Your task to perform on an android device: add a label to a message in the gmail app Image 0: 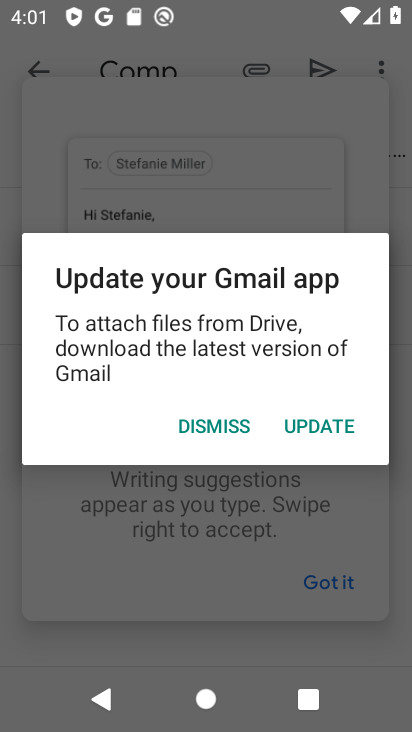
Step 0: drag from (69, 599) to (203, 212)
Your task to perform on an android device: add a label to a message in the gmail app Image 1: 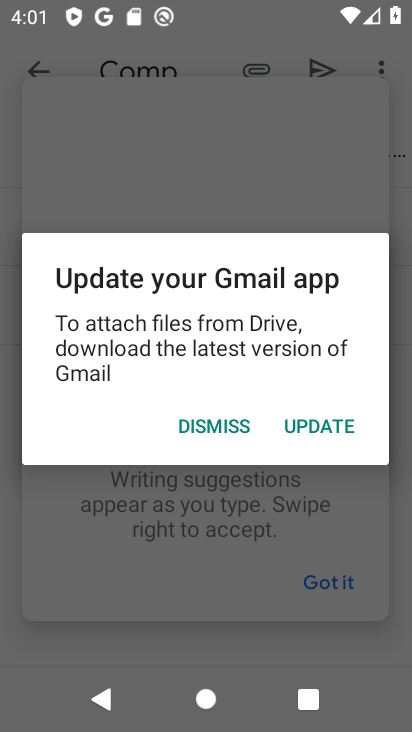
Step 1: press home button
Your task to perform on an android device: add a label to a message in the gmail app Image 2: 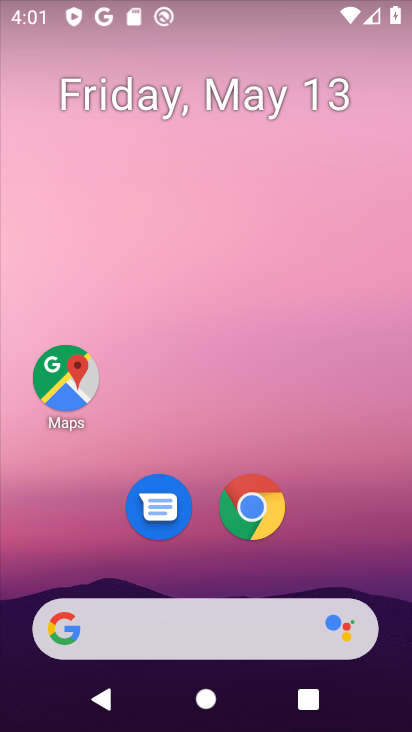
Step 2: drag from (135, 591) to (273, 163)
Your task to perform on an android device: add a label to a message in the gmail app Image 3: 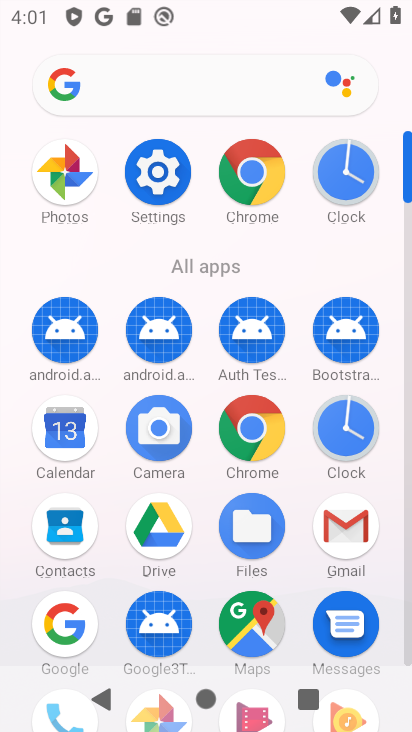
Step 3: drag from (81, 653) to (182, 435)
Your task to perform on an android device: add a label to a message in the gmail app Image 4: 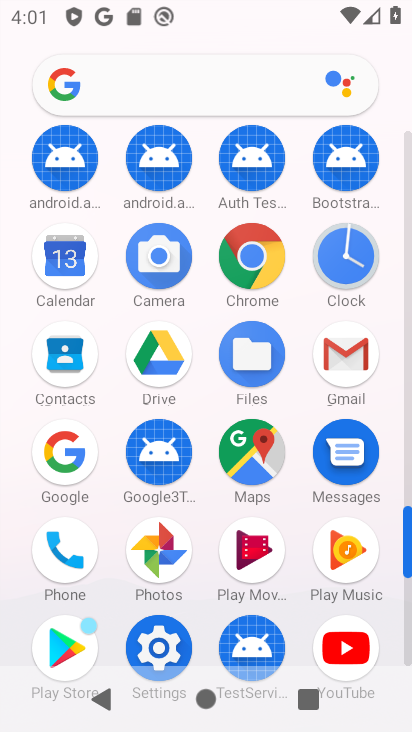
Step 4: click (350, 349)
Your task to perform on an android device: add a label to a message in the gmail app Image 5: 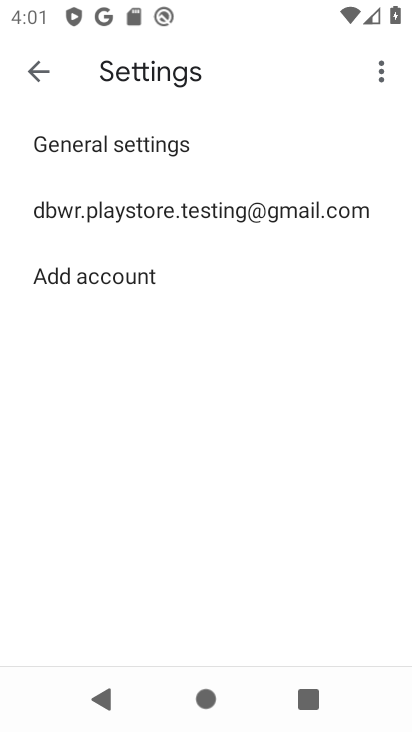
Step 5: click (44, 76)
Your task to perform on an android device: add a label to a message in the gmail app Image 6: 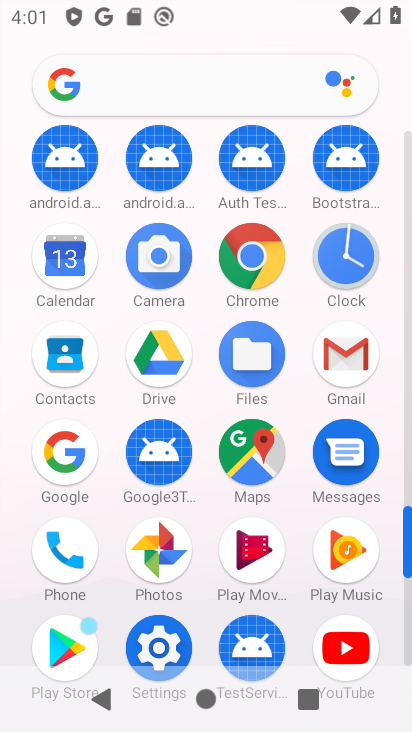
Step 6: click (347, 348)
Your task to perform on an android device: add a label to a message in the gmail app Image 7: 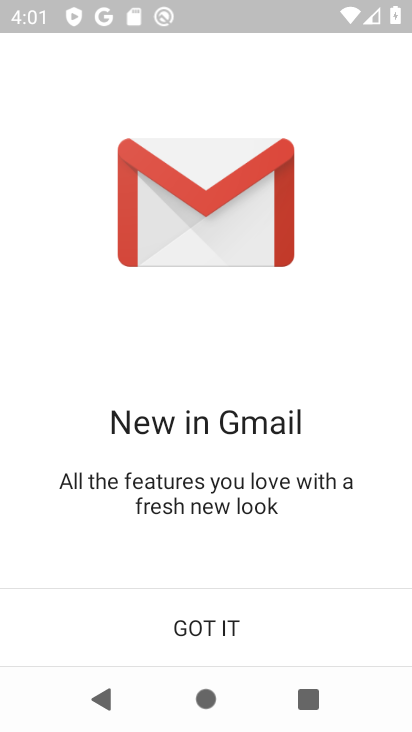
Step 7: click (238, 630)
Your task to perform on an android device: add a label to a message in the gmail app Image 8: 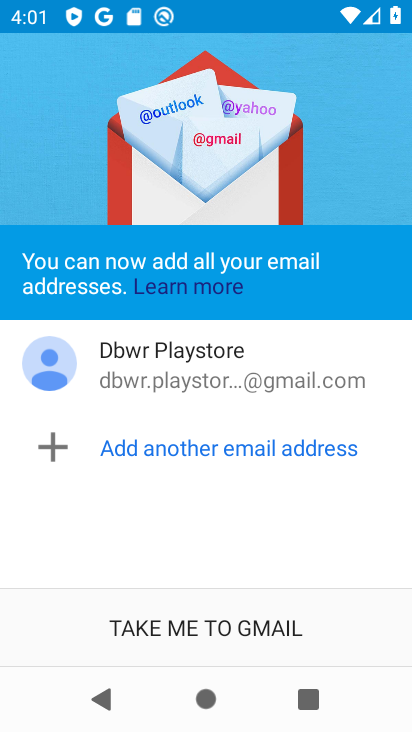
Step 8: click (238, 629)
Your task to perform on an android device: add a label to a message in the gmail app Image 9: 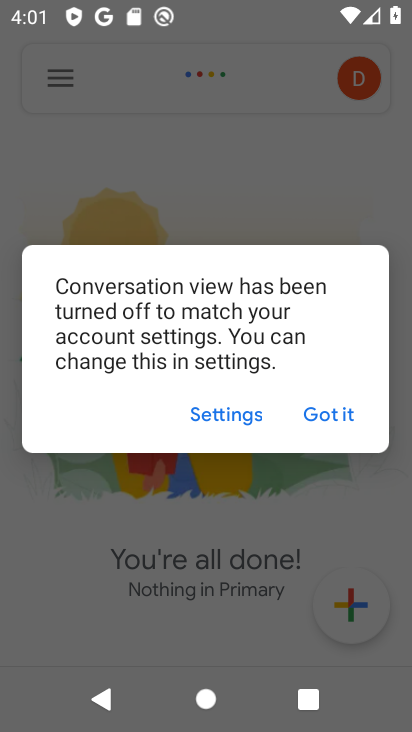
Step 9: click (329, 423)
Your task to perform on an android device: add a label to a message in the gmail app Image 10: 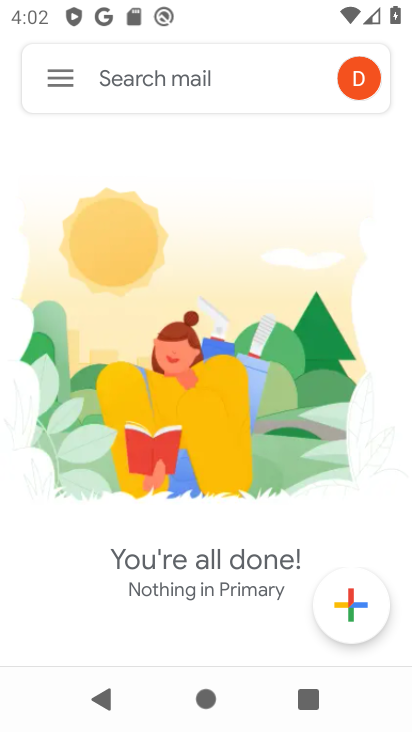
Step 10: click (52, 90)
Your task to perform on an android device: add a label to a message in the gmail app Image 11: 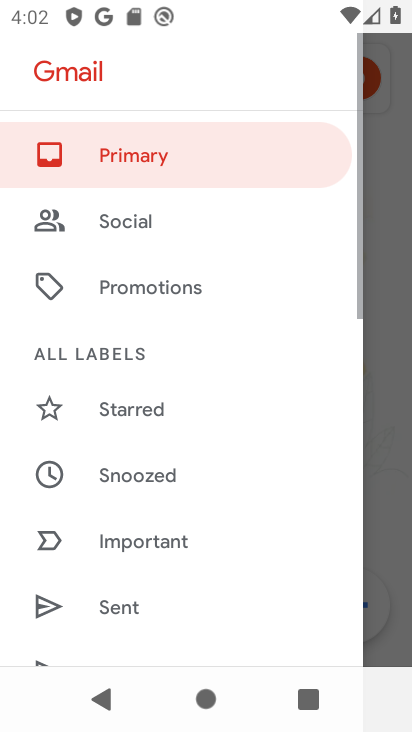
Step 11: drag from (137, 518) to (251, 240)
Your task to perform on an android device: add a label to a message in the gmail app Image 12: 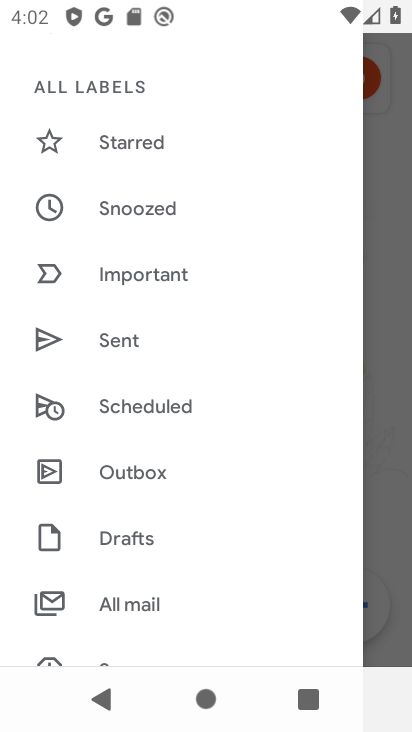
Step 12: click (150, 601)
Your task to perform on an android device: add a label to a message in the gmail app Image 13: 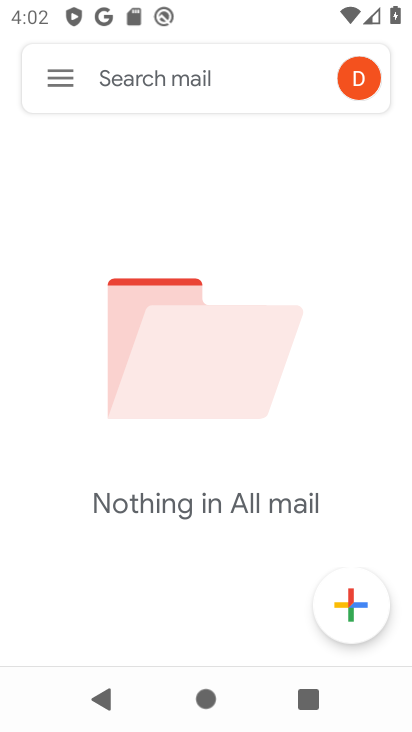
Step 13: task complete